Your task to perform on an android device: move a message to another label in the gmail app Image 0: 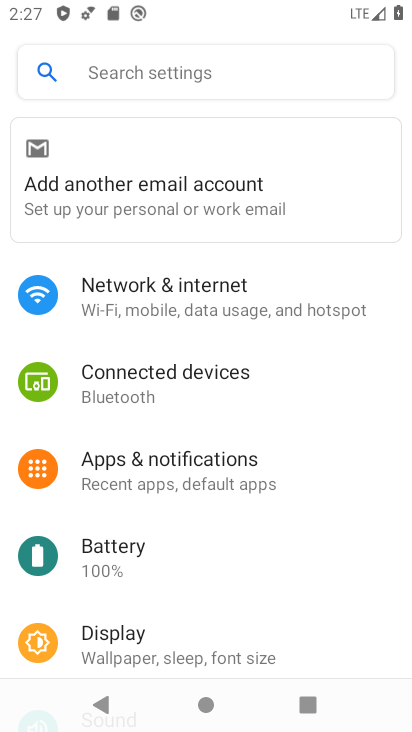
Step 0: press home button
Your task to perform on an android device: move a message to another label in the gmail app Image 1: 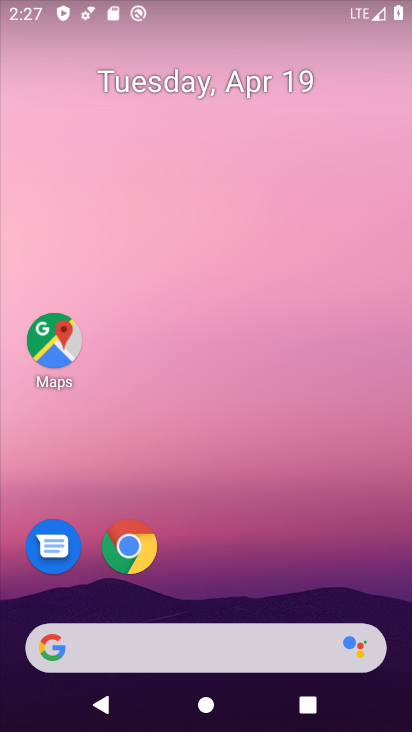
Step 1: drag from (187, 608) to (2, 91)
Your task to perform on an android device: move a message to another label in the gmail app Image 2: 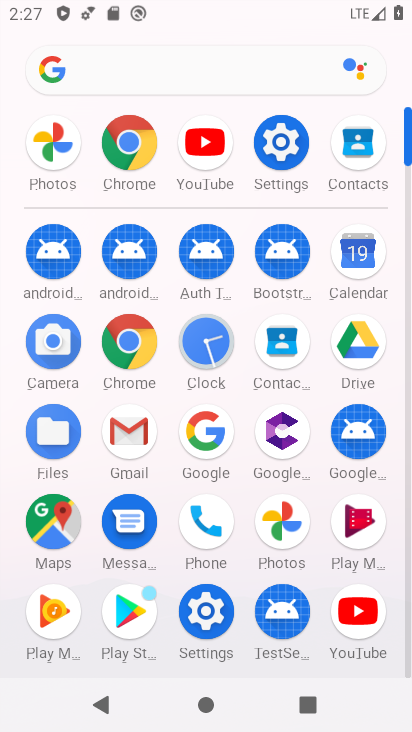
Step 2: click (134, 446)
Your task to perform on an android device: move a message to another label in the gmail app Image 3: 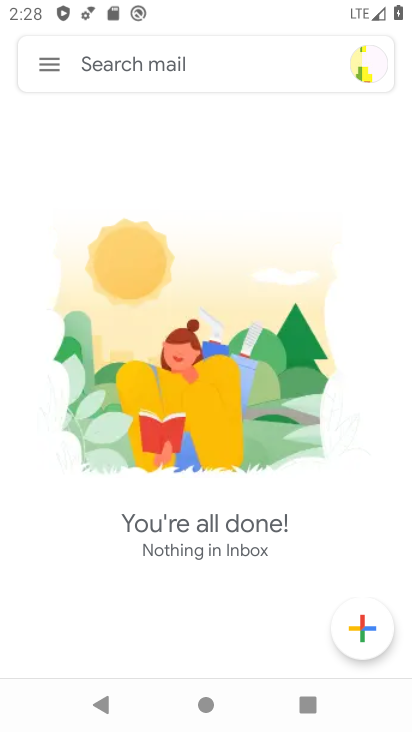
Step 3: click (43, 61)
Your task to perform on an android device: move a message to another label in the gmail app Image 4: 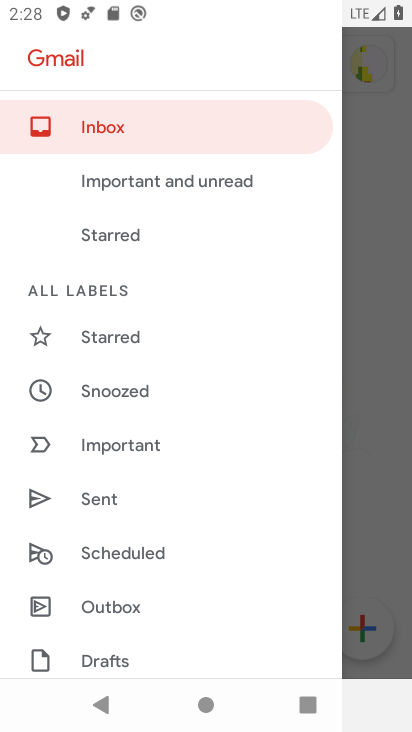
Step 4: drag from (122, 529) to (142, 88)
Your task to perform on an android device: move a message to another label in the gmail app Image 5: 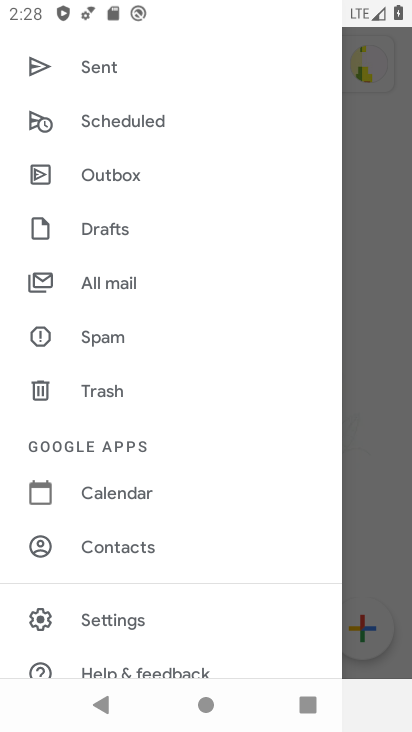
Step 5: click (104, 283)
Your task to perform on an android device: move a message to another label in the gmail app Image 6: 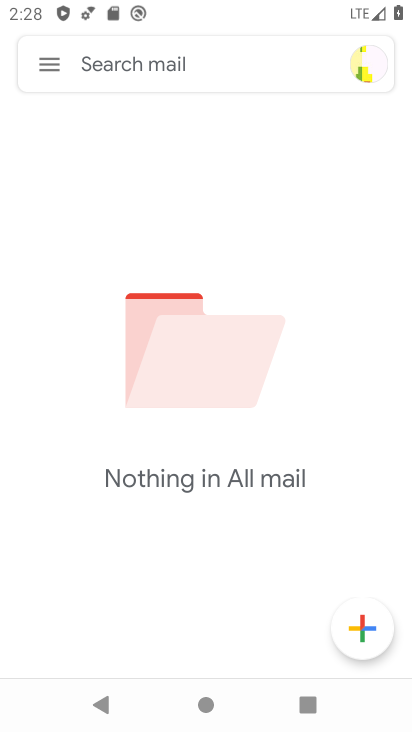
Step 6: task complete